Your task to perform on an android device: Go to accessibility settings Image 0: 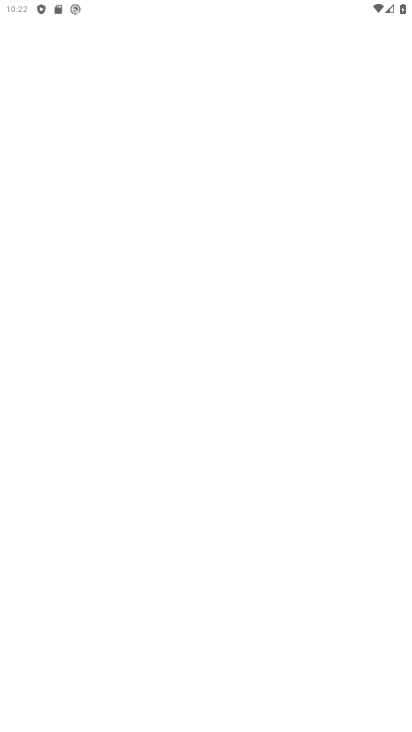
Step 0: drag from (210, 683) to (183, 42)
Your task to perform on an android device: Go to accessibility settings Image 1: 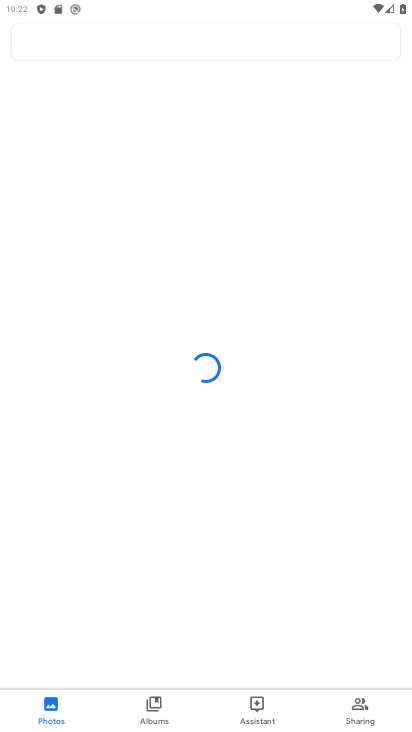
Step 1: press home button
Your task to perform on an android device: Go to accessibility settings Image 2: 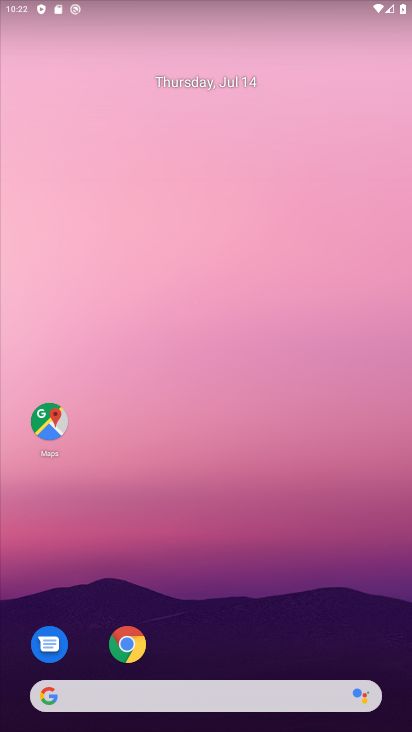
Step 2: drag from (221, 687) to (160, 118)
Your task to perform on an android device: Go to accessibility settings Image 3: 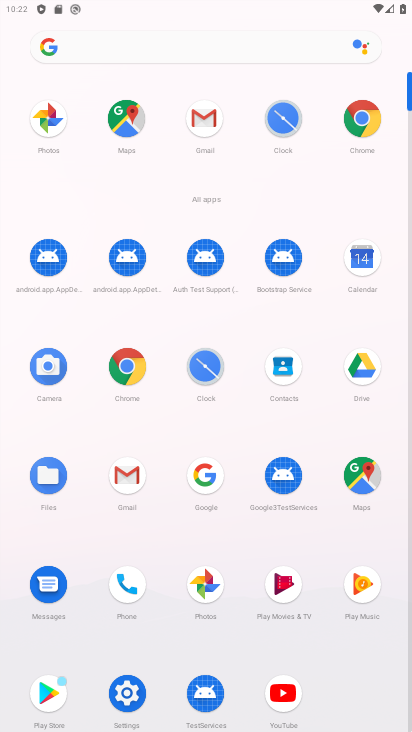
Step 3: click (124, 685)
Your task to perform on an android device: Go to accessibility settings Image 4: 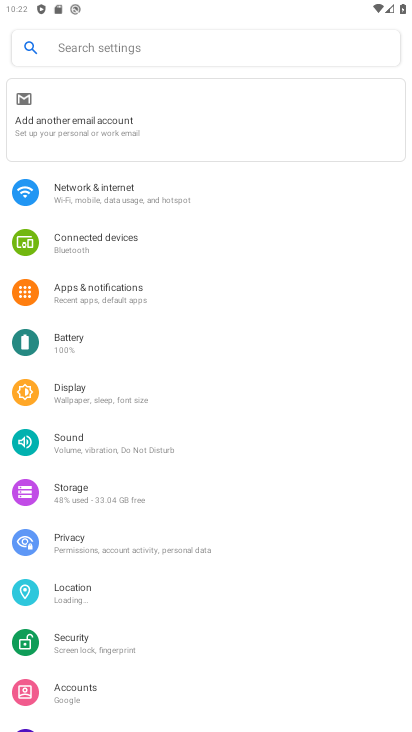
Step 4: drag from (156, 590) to (114, 89)
Your task to perform on an android device: Go to accessibility settings Image 5: 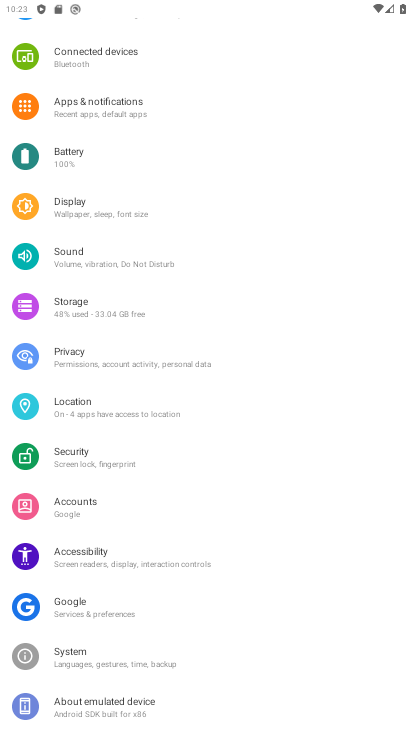
Step 5: click (102, 567)
Your task to perform on an android device: Go to accessibility settings Image 6: 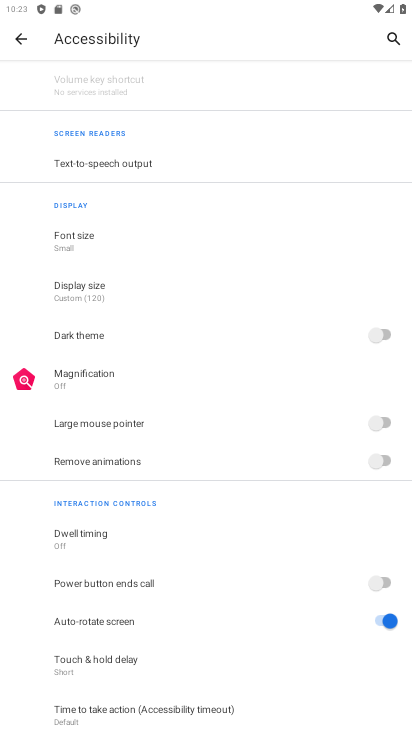
Step 6: task complete